Your task to perform on an android device: change notification settings in the gmail app Image 0: 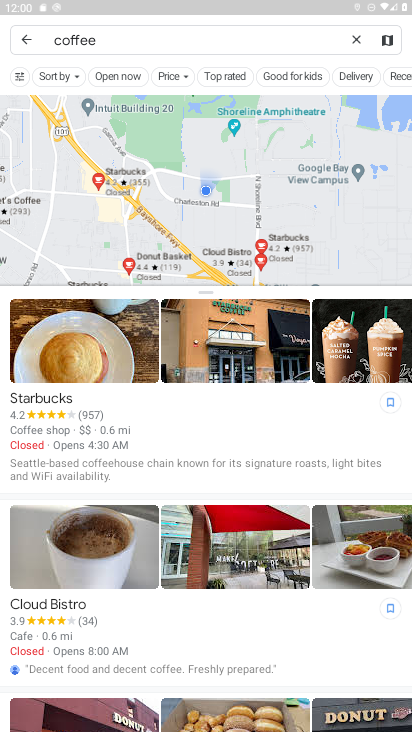
Step 0: press home button
Your task to perform on an android device: change notification settings in the gmail app Image 1: 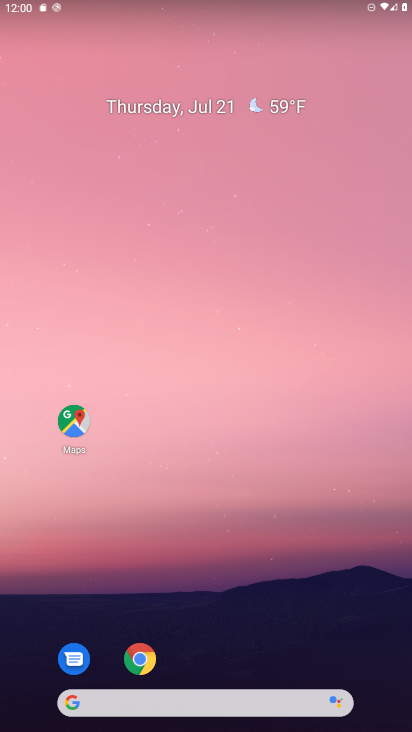
Step 1: drag from (37, 531) to (315, 104)
Your task to perform on an android device: change notification settings in the gmail app Image 2: 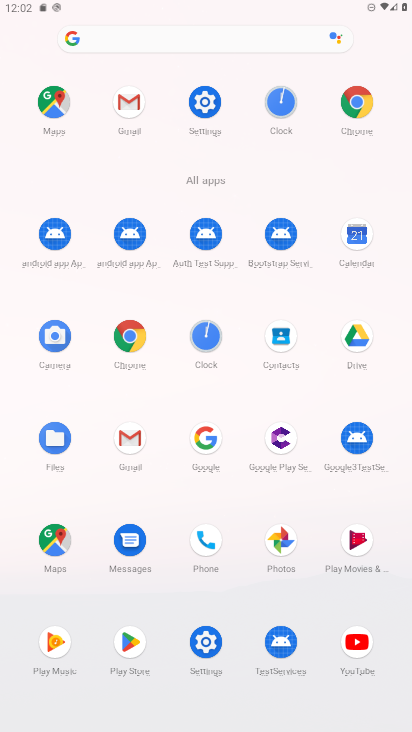
Step 2: click (127, 460)
Your task to perform on an android device: change notification settings in the gmail app Image 3: 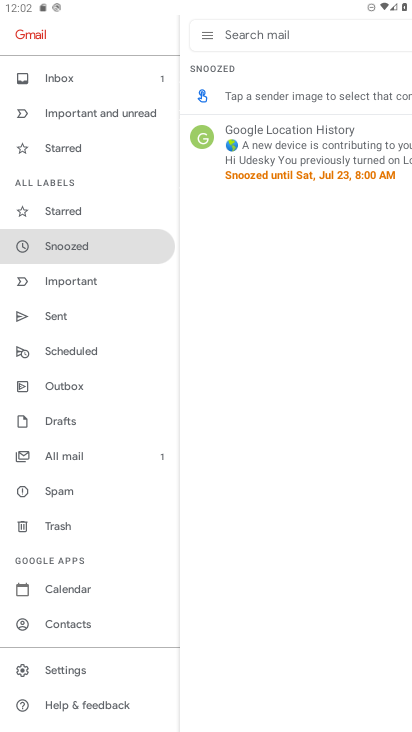
Step 3: click (75, 672)
Your task to perform on an android device: change notification settings in the gmail app Image 4: 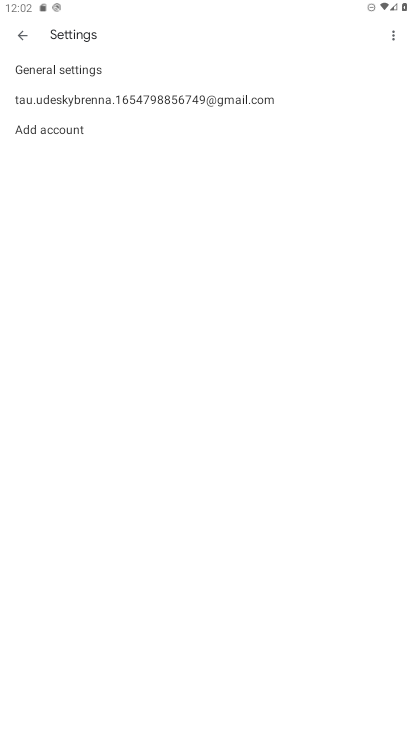
Step 4: click (122, 103)
Your task to perform on an android device: change notification settings in the gmail app Image 5: 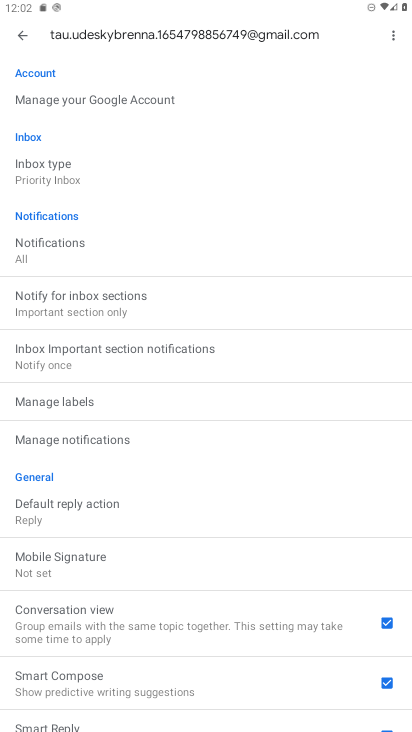
Step 5: click (134, 442)
Your task to perform on an android device: change notification settings in the gmail app Image 6: 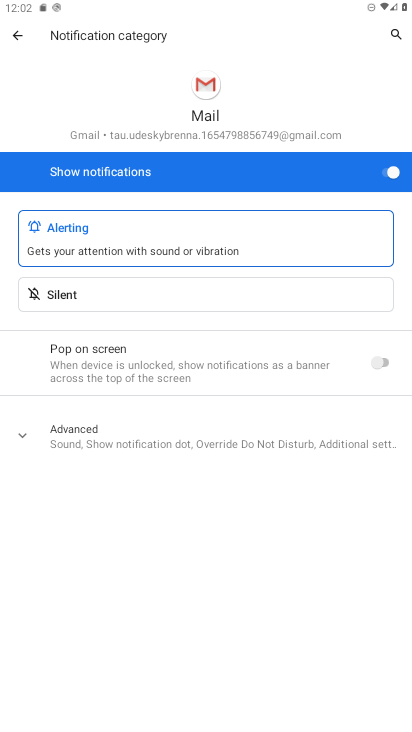
Step 6: click (391, 171)
Your task to perform on an android device: change notification settings in the gmail app Image 7: 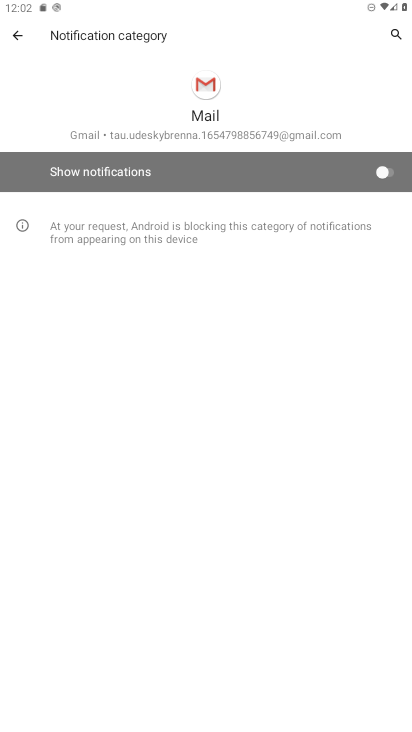
Step 7: task complete